Your task to perform on an android device: turn off location history Image 0: 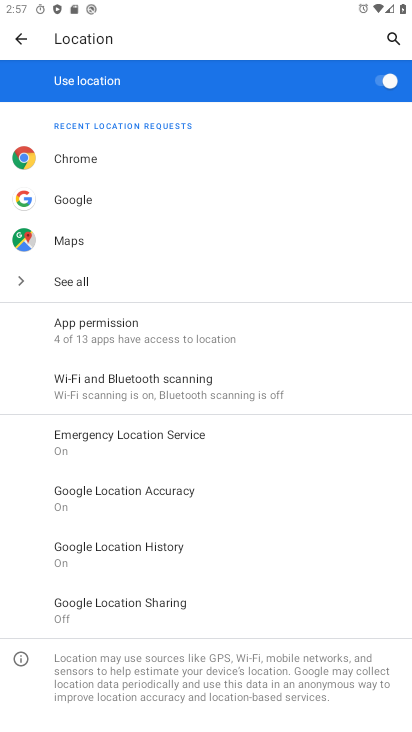
Step 0: click (89, 550)
Your task to perform on an android device: turn off location history Image 1: 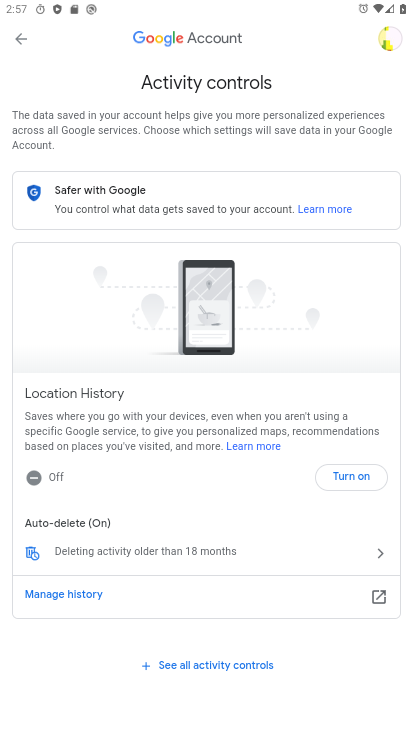
Step 1: click (56, 473)
Your task to perform on an android device: turn off location history Image 2: 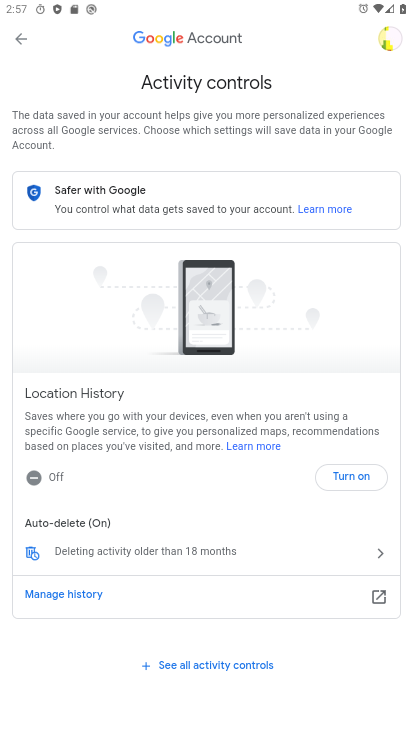
Step 2: click (56, 473)
Your task to perform on an android device: turn off location history Image 3: 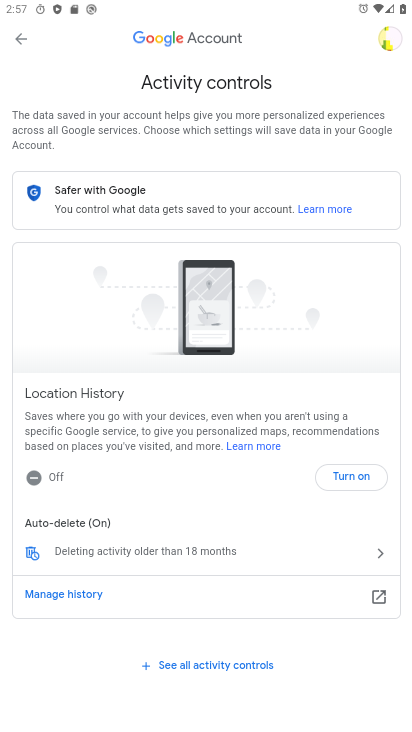
Step 3: click (359, 476)
Your task to perform on an android device: turn off location history Image 4: 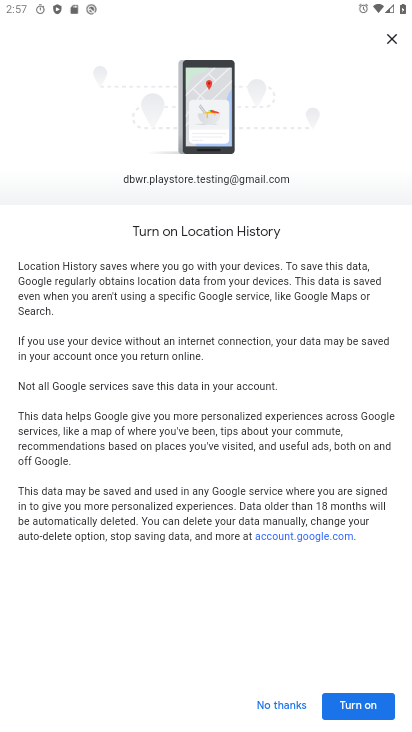
Step 4: click (289, 702)
Your task to perform on an android device: turn off location history Image 5: 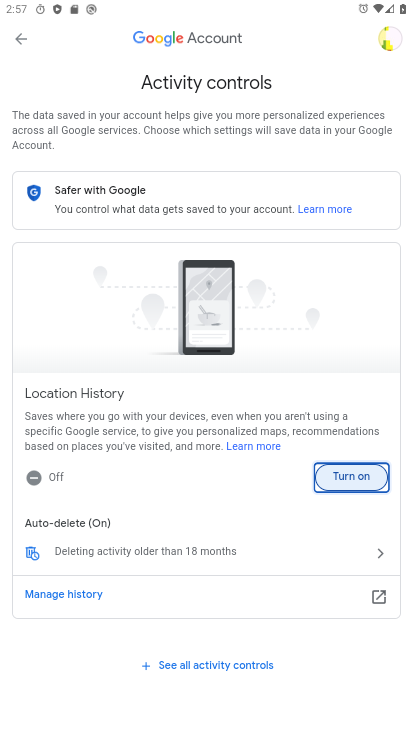
Step 5: click (56, 473)
Your task to perform on an android device: turn off location history Image 6: 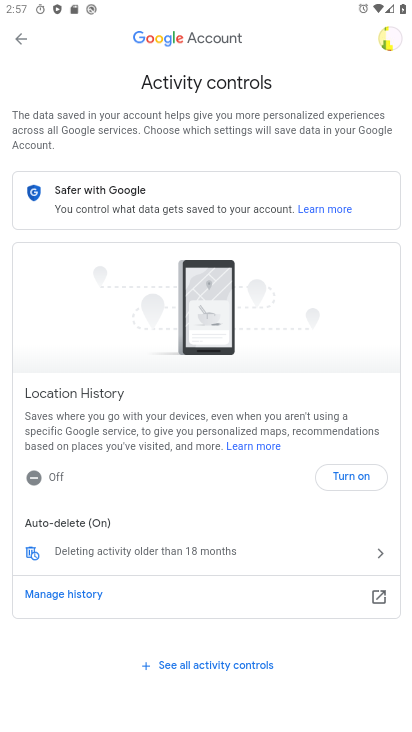
Step 6: click (56, 473)
Your task to perform on an android device: turn off location history Image 7: 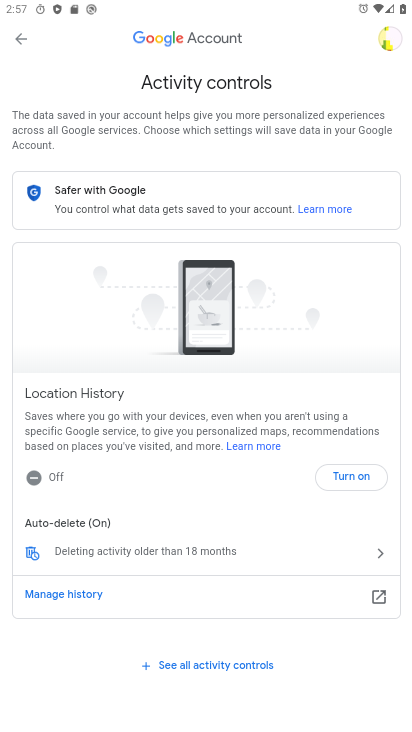
Step 7: click (37, 474)
Your task to perform on an android device: turn off location history Image 8: 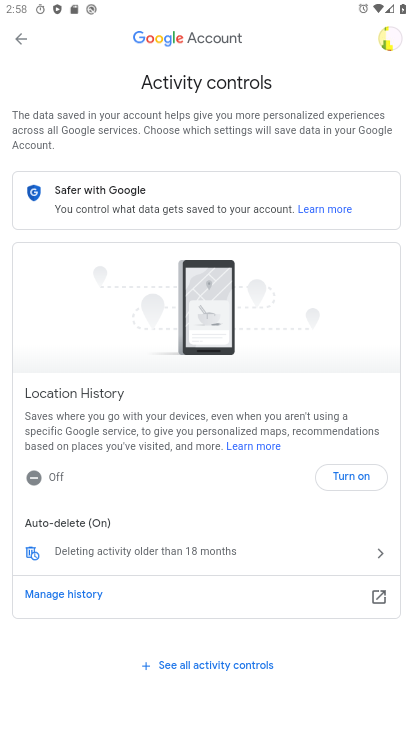
Step 8: click (30, 474)
Your task to perform on an android device: turn off location history Image 9: 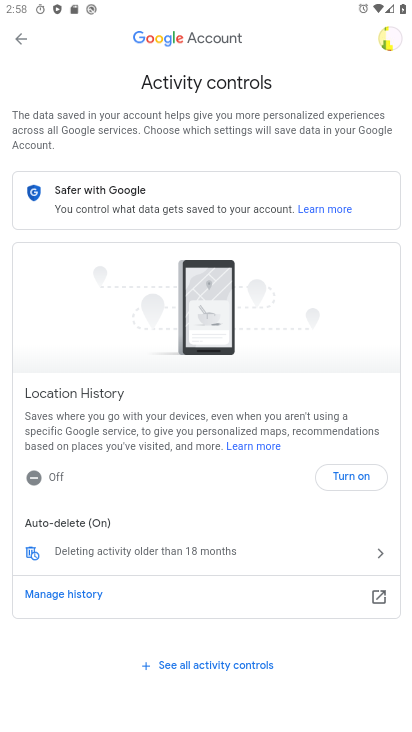
Step 9: click (30, 474)
Your task to perform on an android device: turn off location history Image 10: 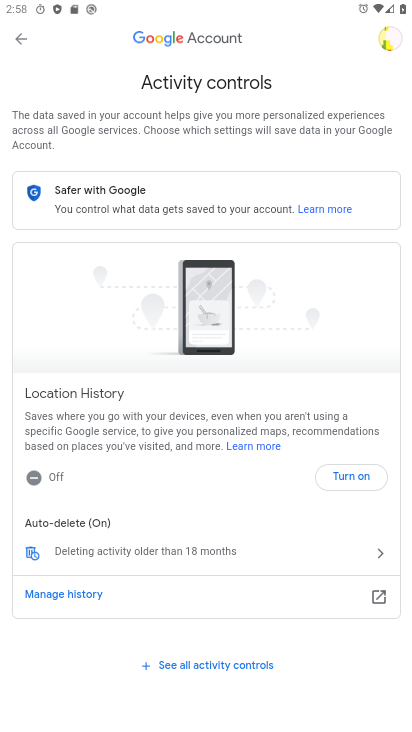
Step 10: click (359, 475)
Your task to perform on an android device: turn off location history Image 11: 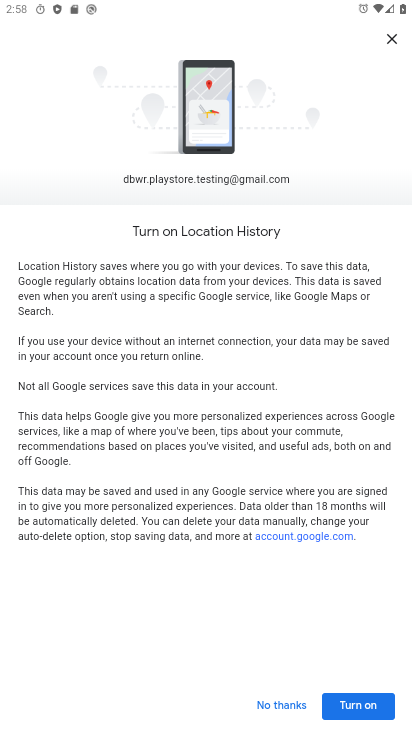
Step 11: click (375, 709)
Your task to perform on an android device: turn off location history Image 12: 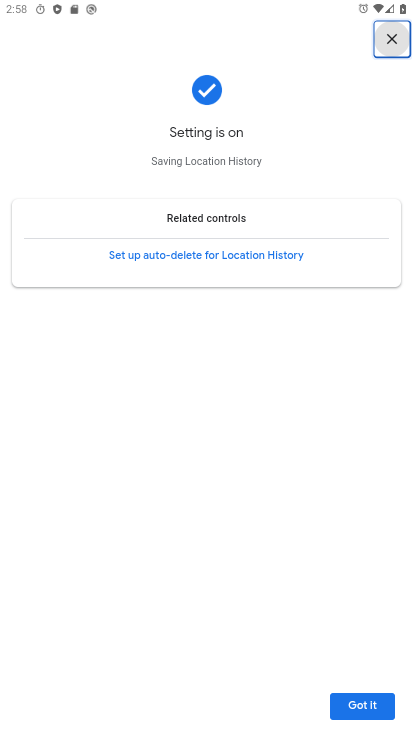
Step 12: click (358, 697)
Your task to perform on an android device: turn off location history Image 13: 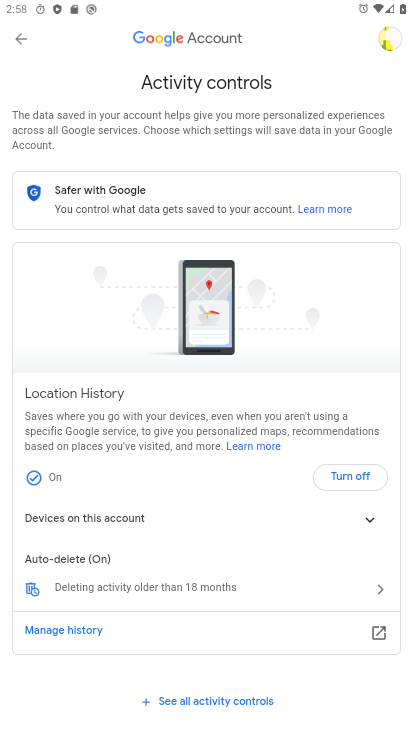
Step 13: task complete